Your task to perform on an android device: toggle wifi Image 0: 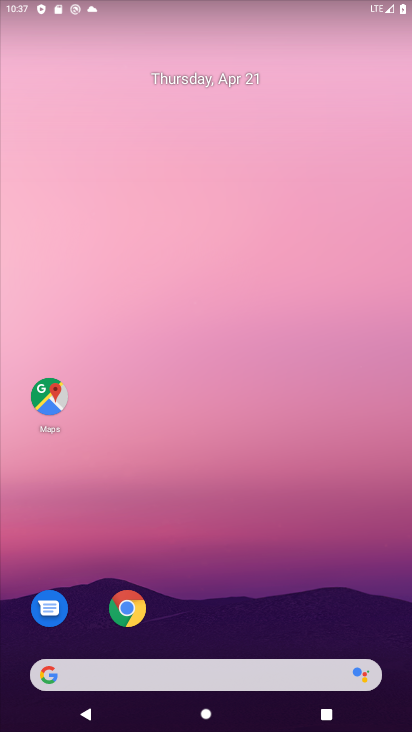
Step 0: drag from (206, 614) to (178, 96)
Your task to perform on an android device: toggle wifi Image 1: 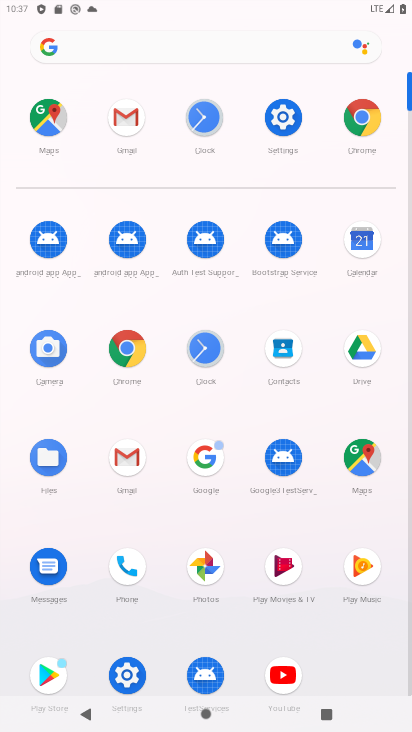
Step 1: click (281, 114)
Your task to perform on an android device: toggle wifi Image 2: 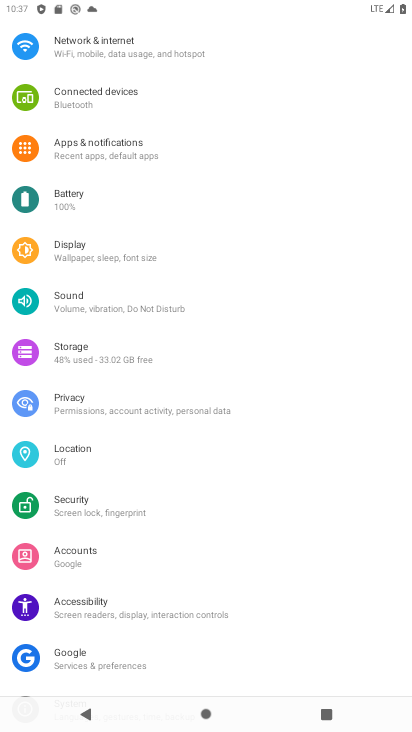
Step 2: click (109, 56)
Your task to perform on an android device: toggle wifi Image 3: 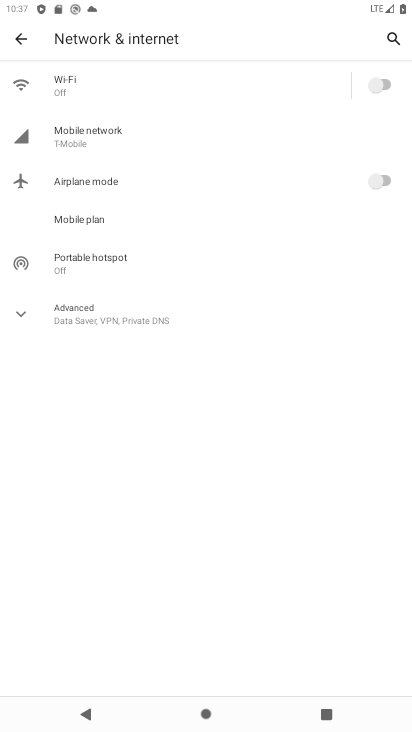
Step 3: click (377, 85)
Your task to perform on an android device: toggle wifi Image 4: 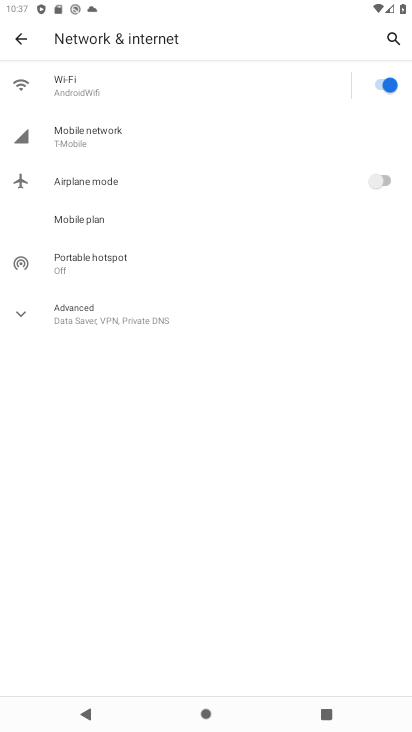
Step 4: task complete